Your task to perform on an android device: What's the weather like inToronto? Image 0: 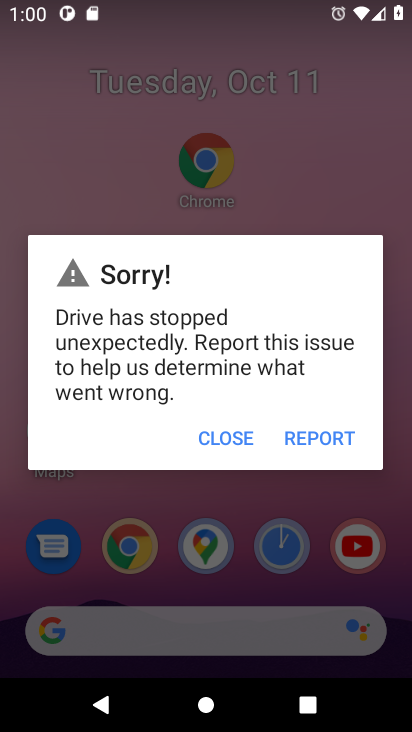
Step 0: click (213, 437)
Your task to perform on an android device: What's the weather like inToronto? Image 1: 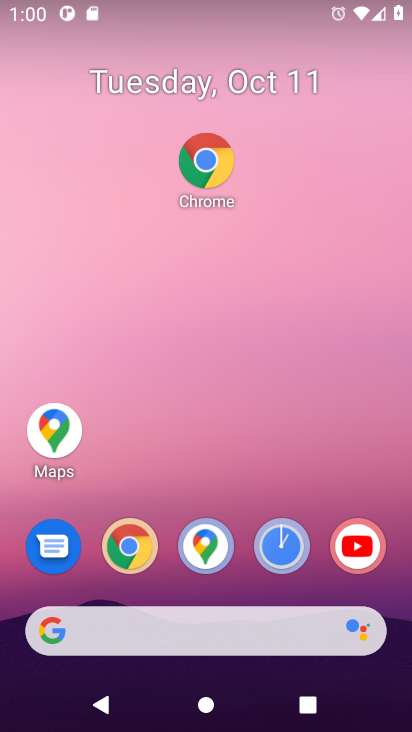
Step 1: click (142, 551)
Your task to perform on an android device: What's the weather like inToronto? Image 2: 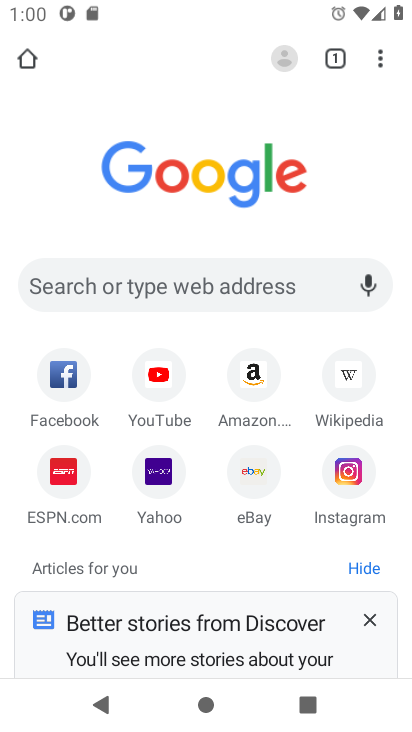
Step 2: click (168, 289)
Your task to perform on an android device: What's the weather like inToronto? Image 3: 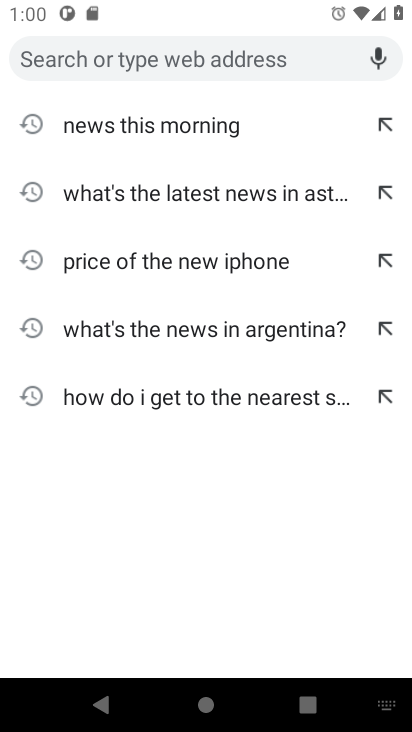
Step 3: type "weather in toronto"
Your task to perform on an android device: What's the weather like inToronto? Image 4: 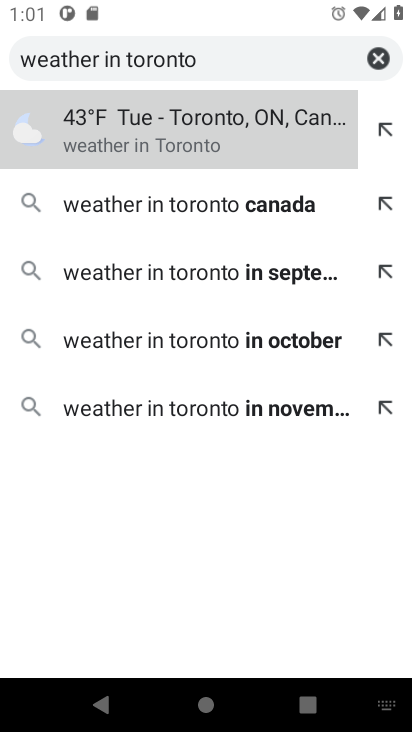
Step 4: type ""
Your task to perform on an android device: What's the weather like inToronto? Image 5: 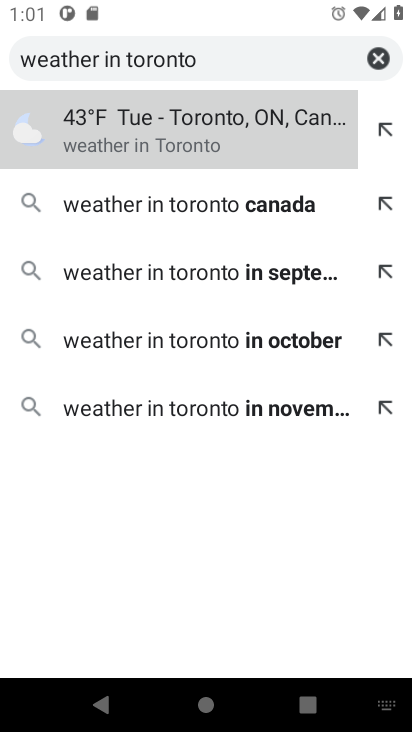
Step 5: press enter
Your task to perform on an android device: What's the weather like inToronto? Image 6: 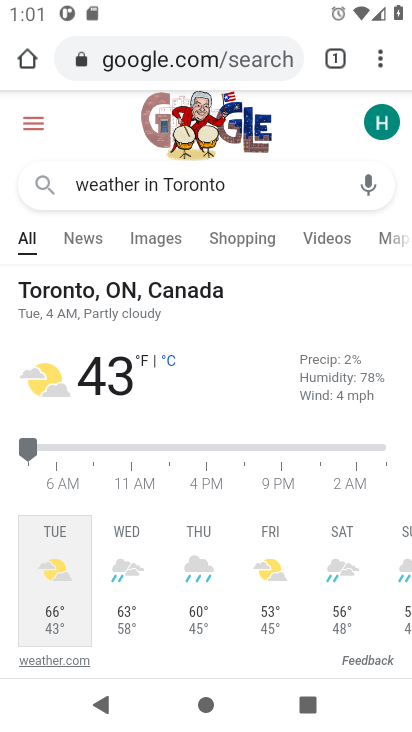
Step 6: task complete